Your task to perform on an android device: toggle data saver in the chrome app Image 0: 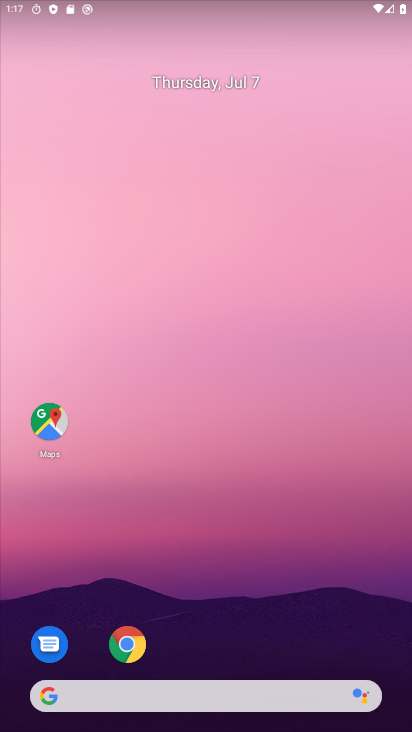
Step 0: click (130, 647)
Your task to perform on an android device: toggle data saver in the chrome app Image 1: 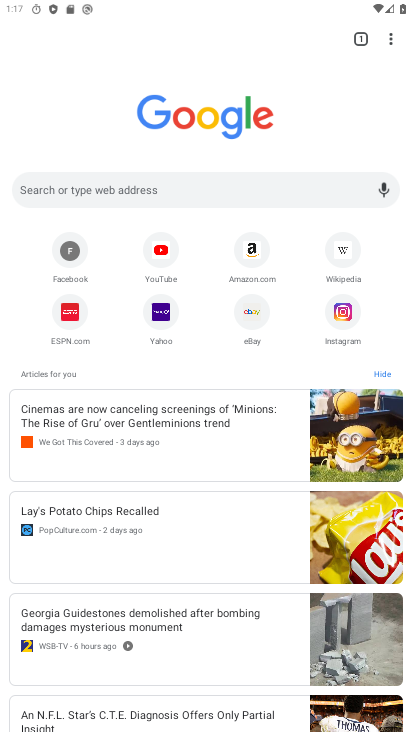
Step 1: click (390, 40)
Your task to perform on an android device: toggle data saver in the chrome app Image 2: 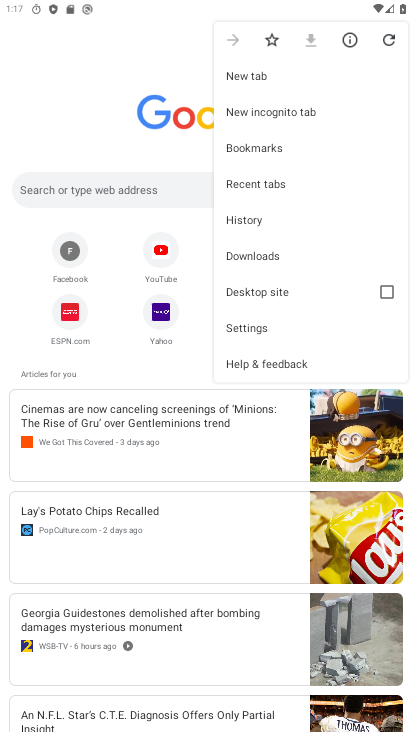
Step 2: click (255, 323)
Your task to perform on an android device: toggle data saver in the chrome app Image 3: 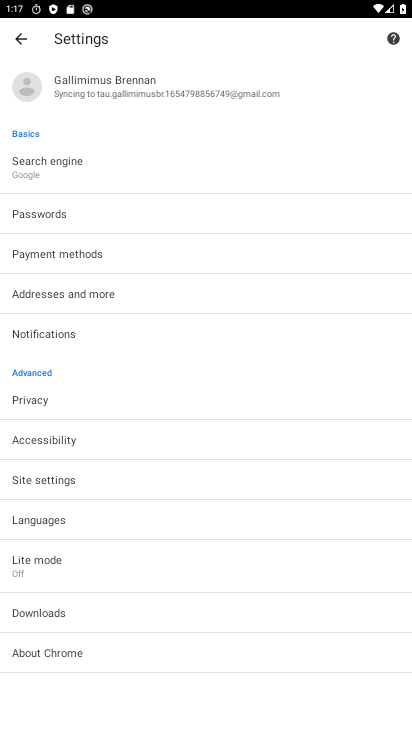
Step 3: click (55, 562)
Your task to perform on an android device: toggle data saver in the chrome app Image 4: 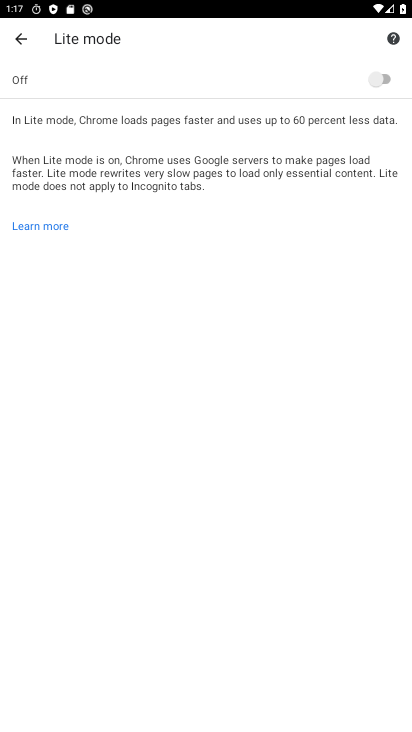
Step 4: click (383, 78)
Your task to perform on an android device: toggle data saver in the chrome app Image 5: 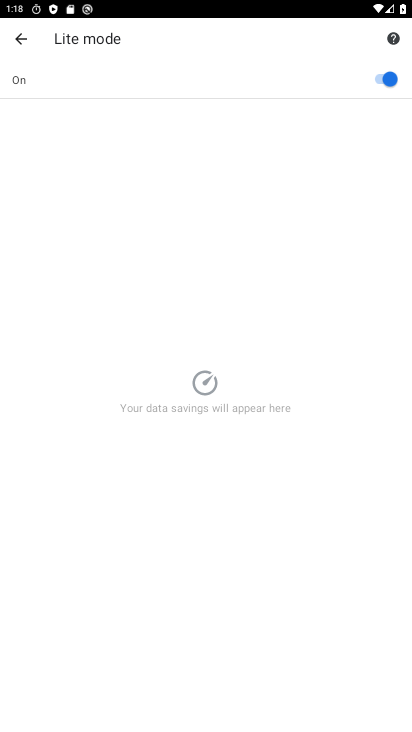
Step 5: task complete